Your task to perform on an android device: see sites visited before in the chrome app Image 0: 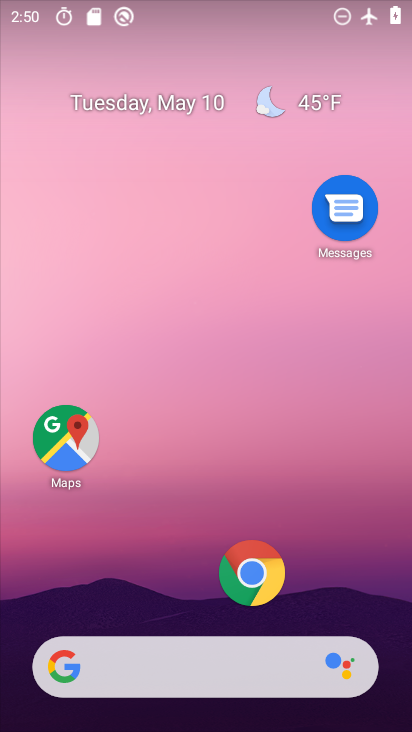
Step 0: drag from (200, 610) to (210, 224)
Your task to perform on an android device: see sites visited before in the chrome app Image 1: 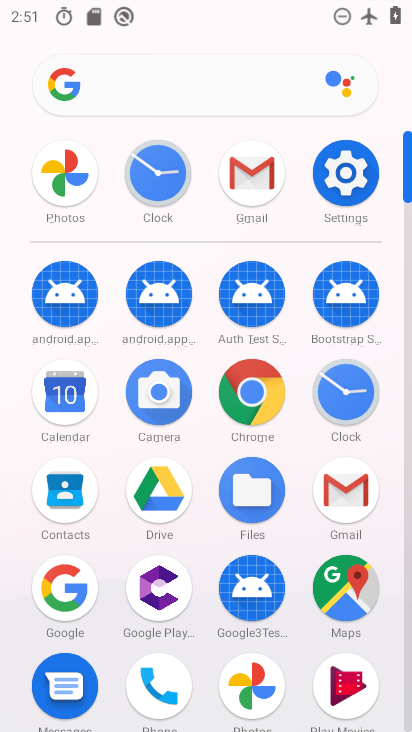
Step 1: drag from (200, 663) to (229, 371)
Your task to perform on an android device: see sites visited before in the chrome app Image 2: 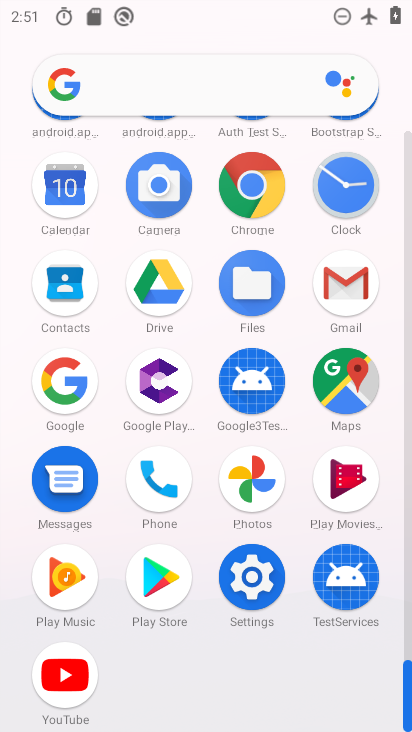
Step 2: click (244, 191)
Your task to perform on an android device: see sites visited before in the chrome app Image 3: 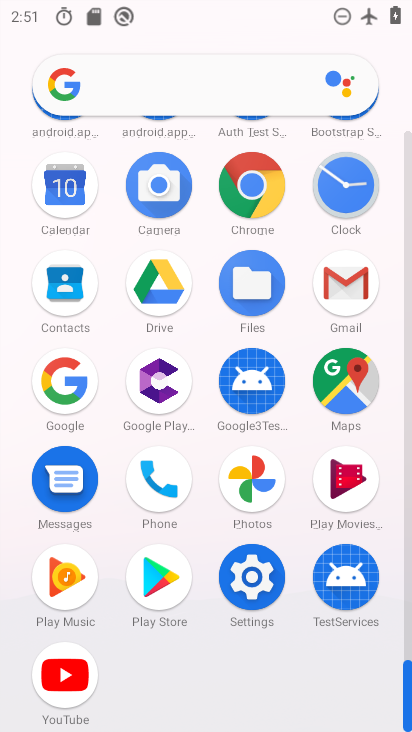
Step 3: click (244, 191)
Your task to perform on an android device: see sites visited before in the chrome app Image 4: 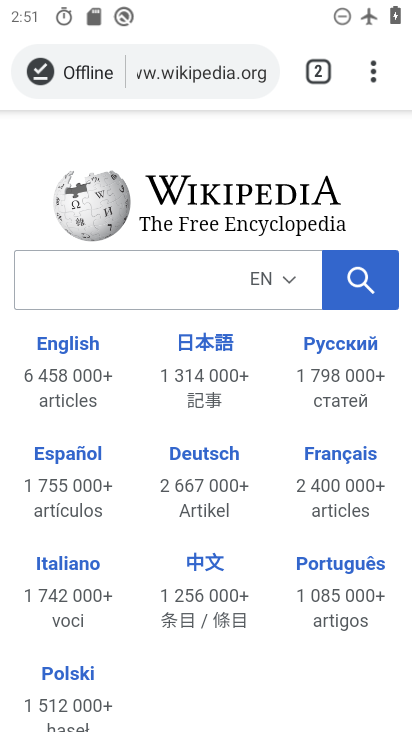
Step 4: drag from (220, 161) to (202, 334)
Your task to perform on an android device: see sites visited before in the chrome app Image 5: 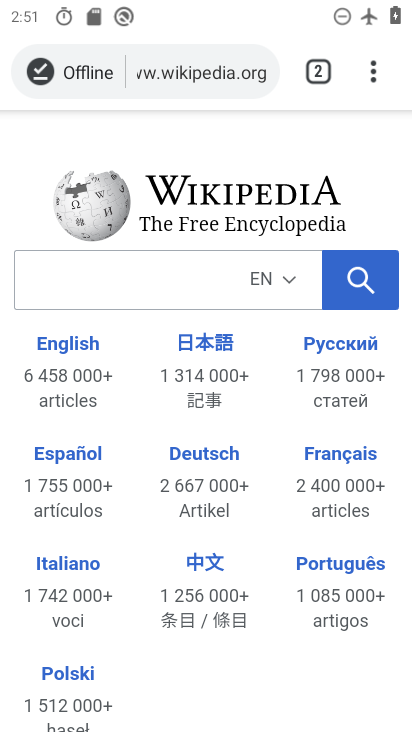
Step 5: click (277, 411)
Your task to perform on an android device: see sites visited before in the chrome app Image 6: 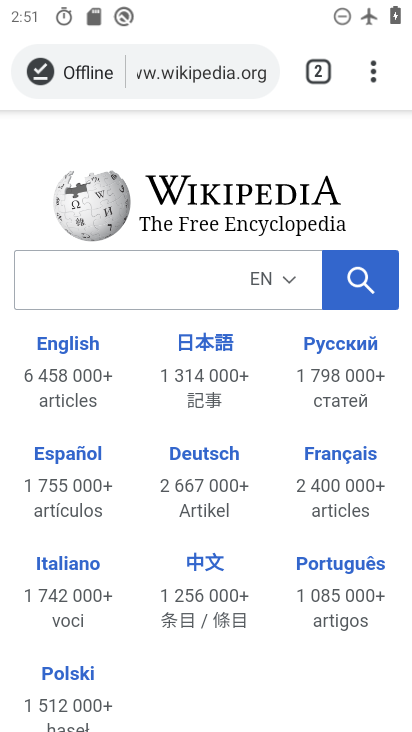
Step 6: drag from (258, 662) to (273, 420)
Your task to perform on an android device: see sites visited before in the chrome app Image 7: 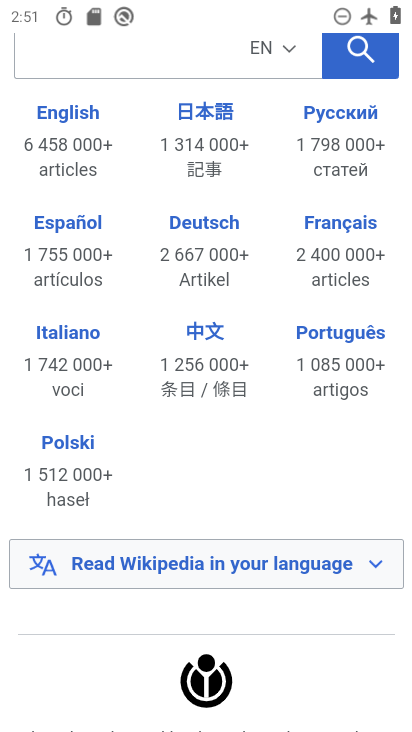
Step 7: click (251, 712)
Your task to perform on an android device: see sites visited before in the chrome app Image 8: 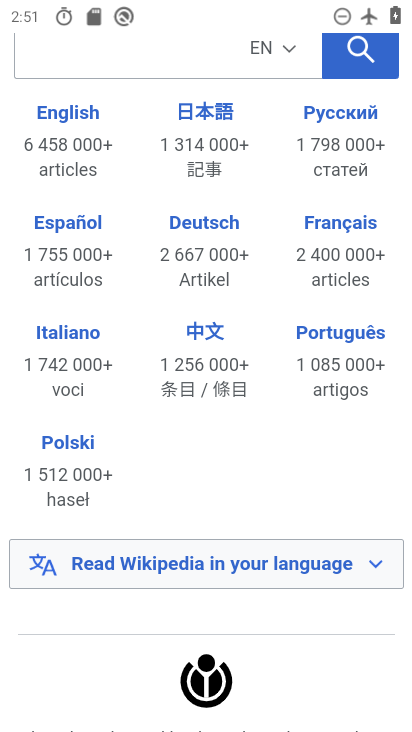
Step 8: drag from (257, 99) to (224, 532)
Your task to perform on an android device: see sites visited before in the chrome app Image 9: 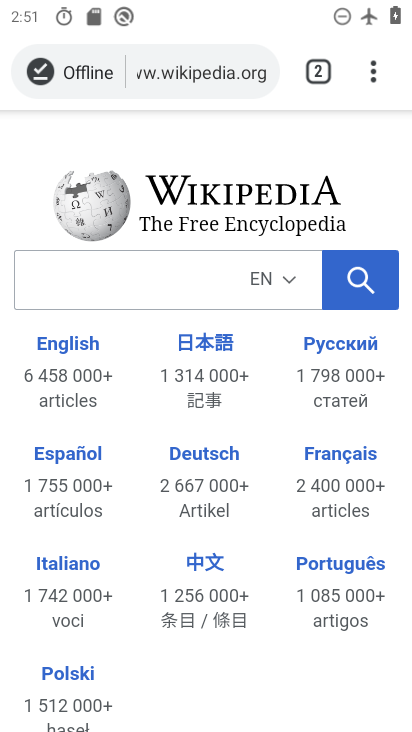
Step 9: drag from (365, 71) to (232, 559)
Your task to perform on an android device: see sites visited before in the chrome app Image 10: 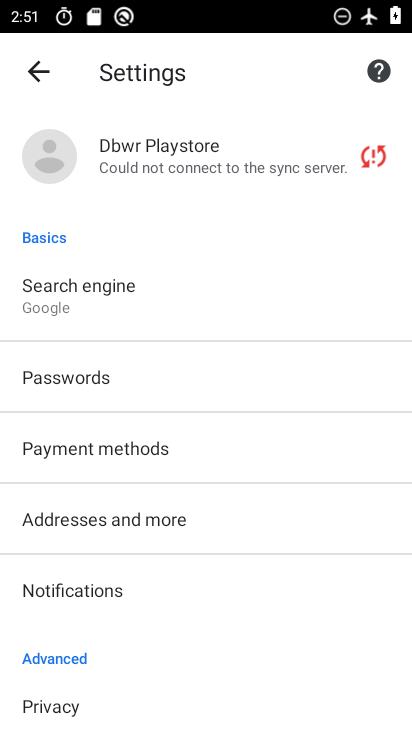
Step 10: click (45, 82)
Your task to perform on an android device: see sites visited before in the chrome app Image 11: 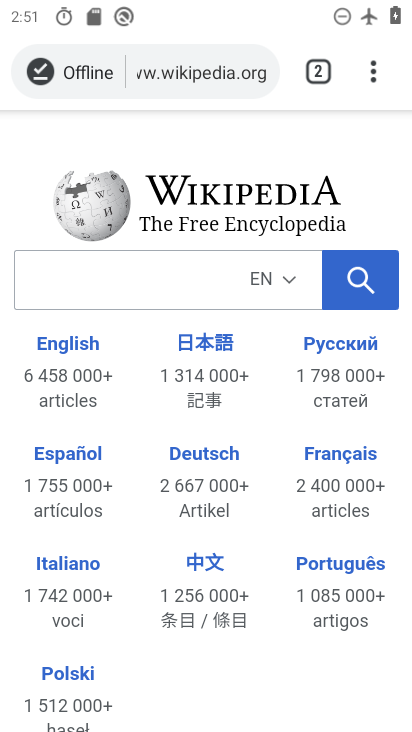
Step 11: click (386, 65)
Your task to perform on an android device: see sites visited before in the chrome app Image 12: 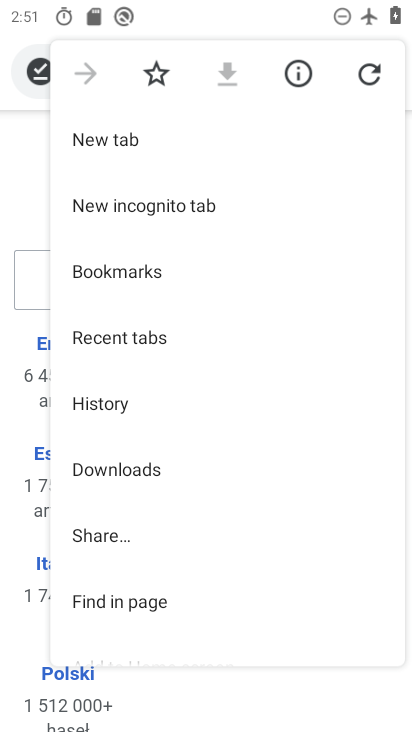
Step 12: drag from (204, 537) to (268, 272)
Your task to perform on an android device: see sites visited before in the chrome app Image 13: 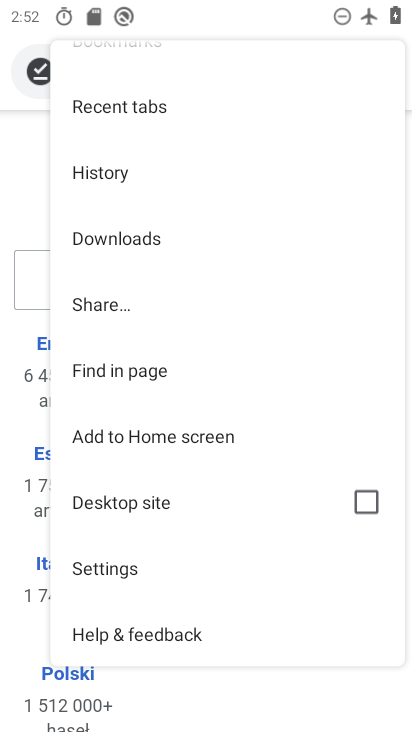
Step 13: drag from (223, 223) to (214, 571)
Your task to perform on an android device: see sites visited before in the chrome app Image 14: 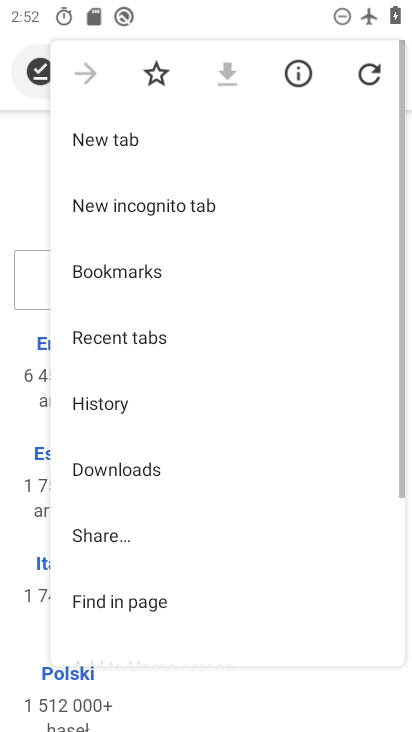
Step 14: click (133, 277)
Your task to perform on an android device: see sites visited before in the chrome app Image 15: 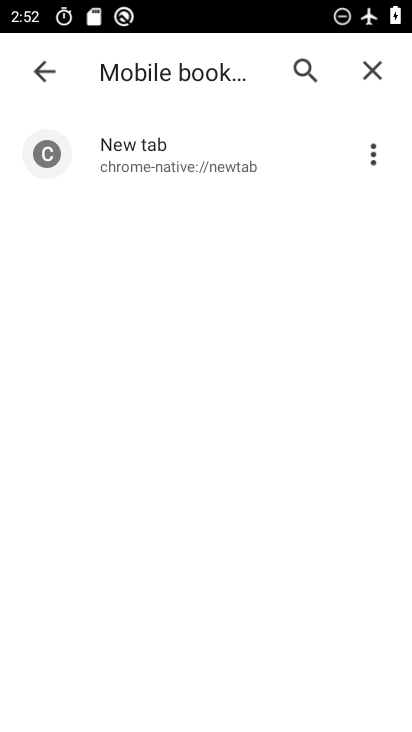
Step 15: task complete